Your task to perform on an android device: When is my next appointment? Image 0: 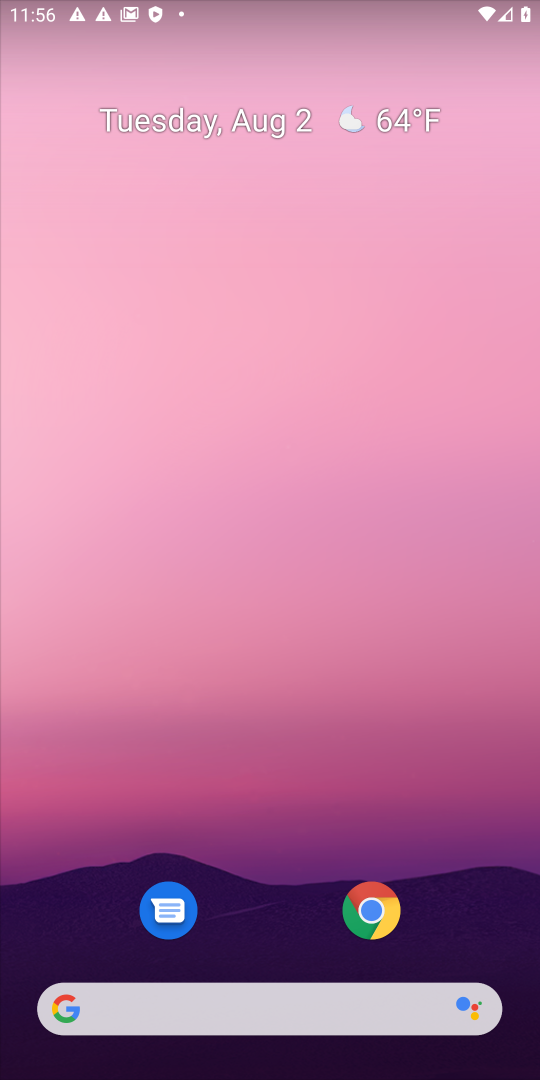
Step 0: drag from (277, 915) to (207, 12)
Your task to perform on an android device: When is my next appointment? Image 1: 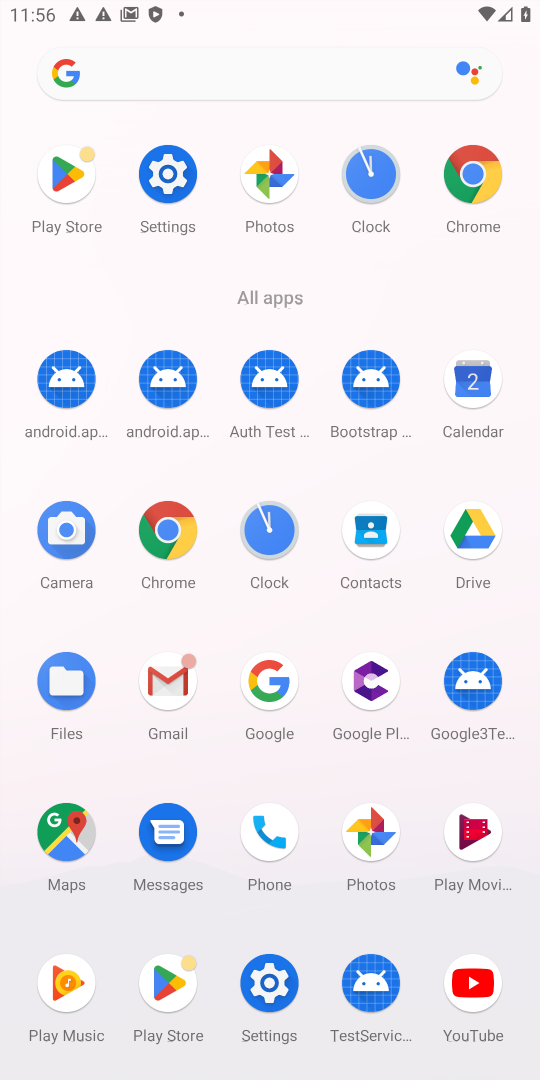
Step 1: click (466, 392)
Your task to perform on an android device: When is my next appointment? Image 2: 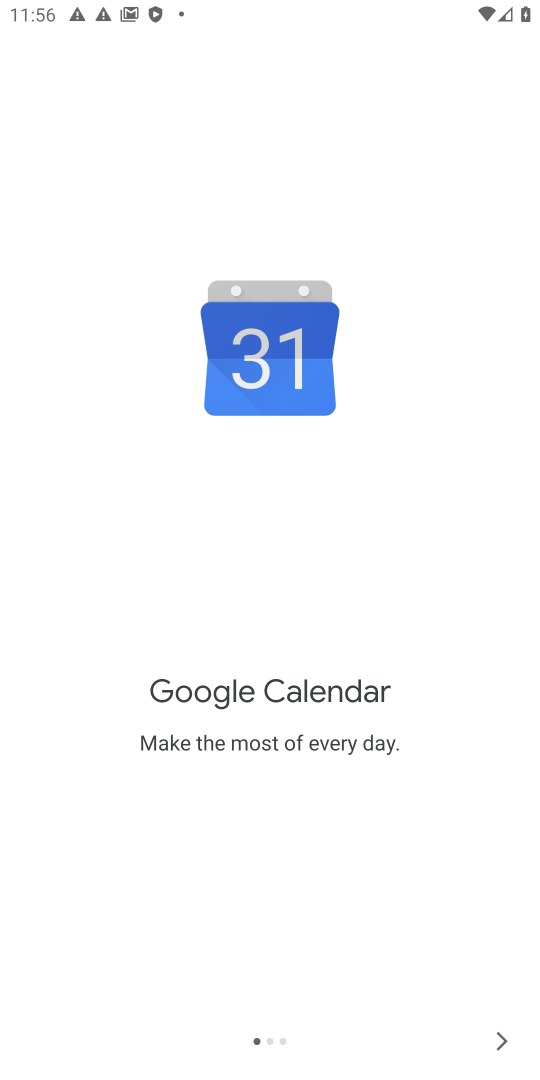
Step 2: click (503, 1042)
Your task to perform on an android device: When is my next appointment? Image 3: 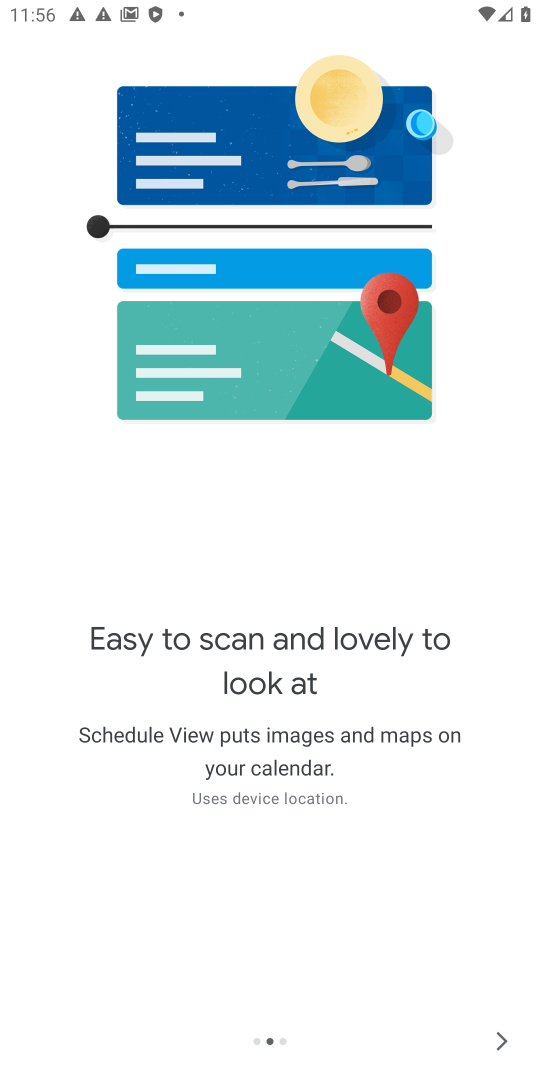
Step 3: click (503, 1042)
Your task to perform on an android device: When is my next appointment? Image 4: 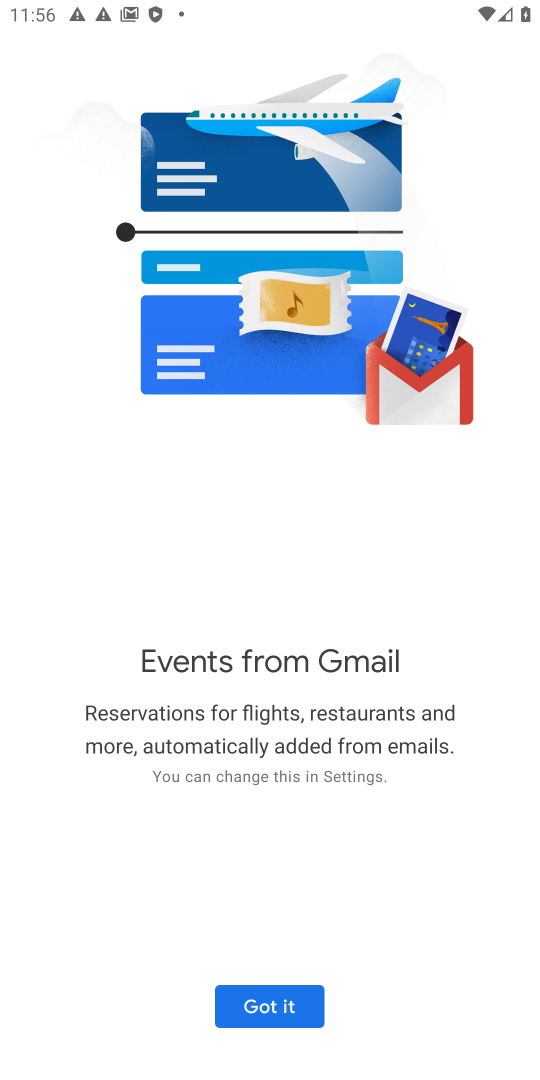
Step 4: click (250, 1020)
Your task to perform on an android device: When is my next appointment? Image 5: 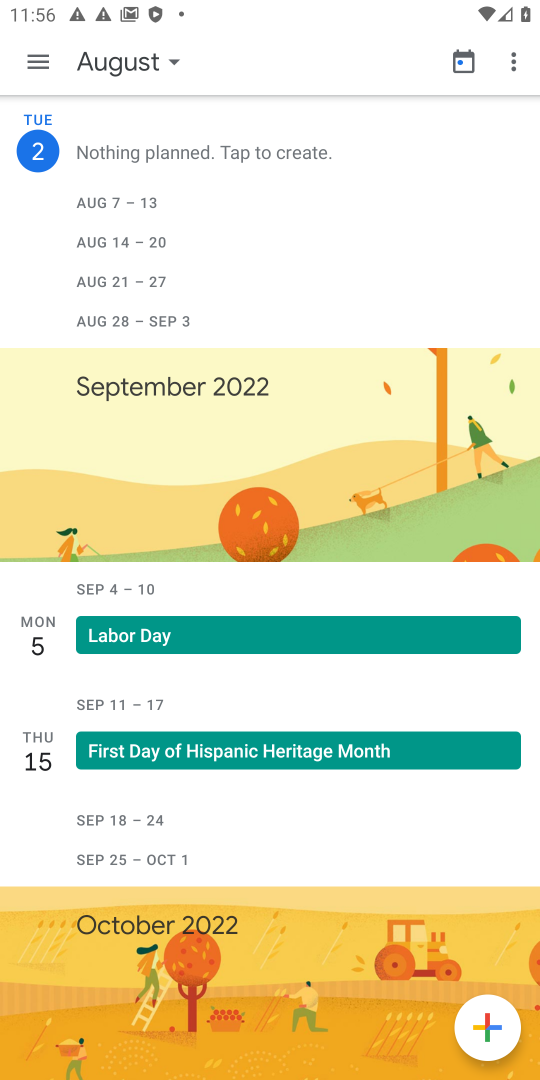
Step 5: click (23, 61)
Your task to perform on an android device: When is my next appointment? Image 6: 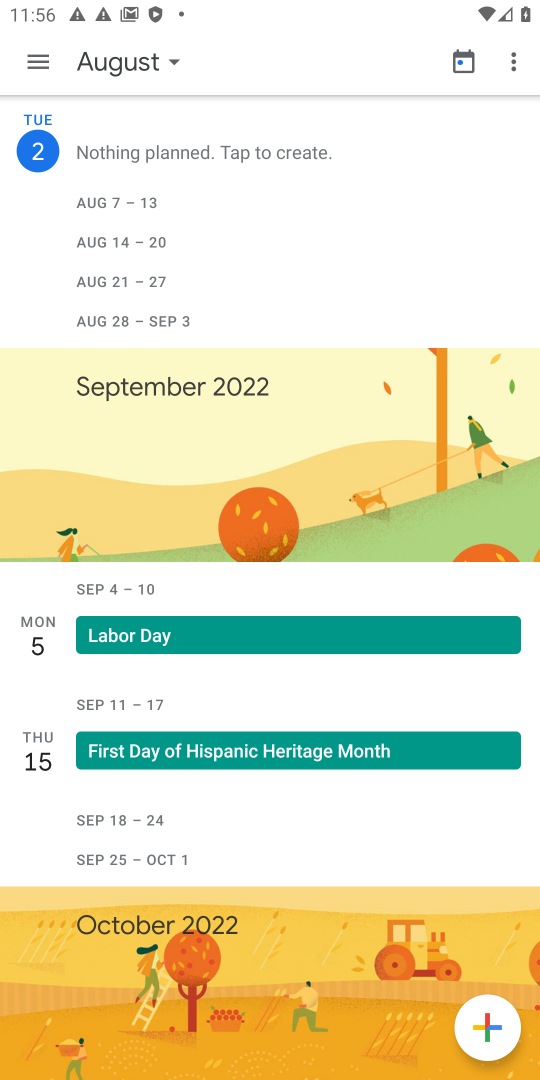
Step 6: click (32, 62)
Your task to perform on an android device: When is my next appointment? Image 7: 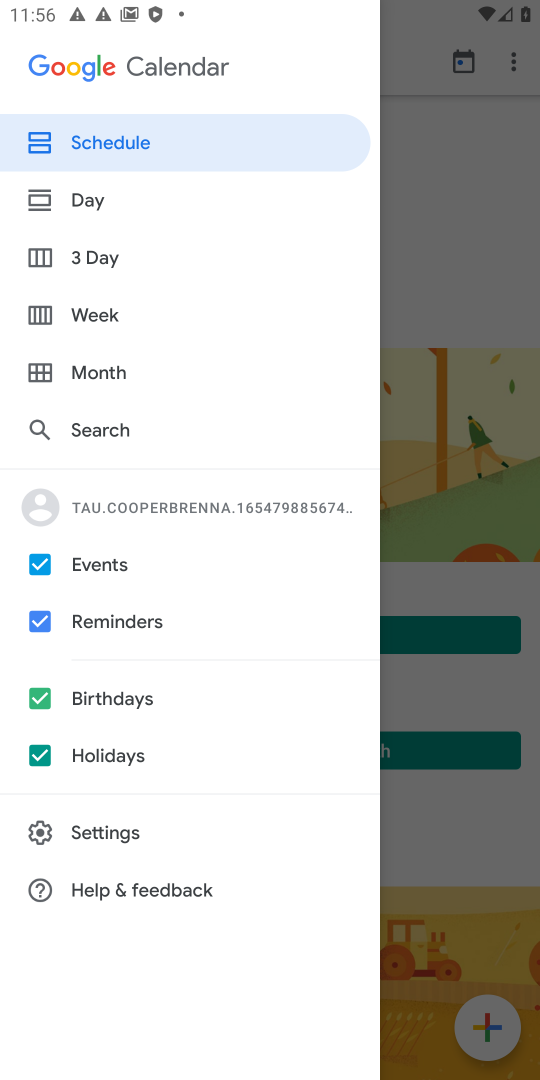
Step 7: click (42, 700)
Your task to perform on an android device: When is my next appointment? Image 8: 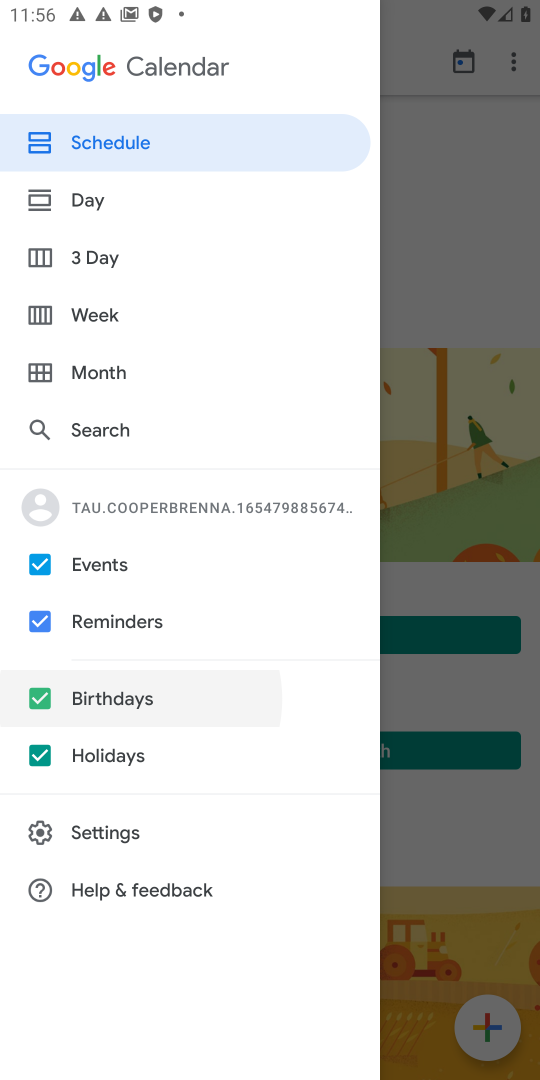
Step 8: click (42, 748)
Your task to perform on an android device: When is my next appointment? Image 9: 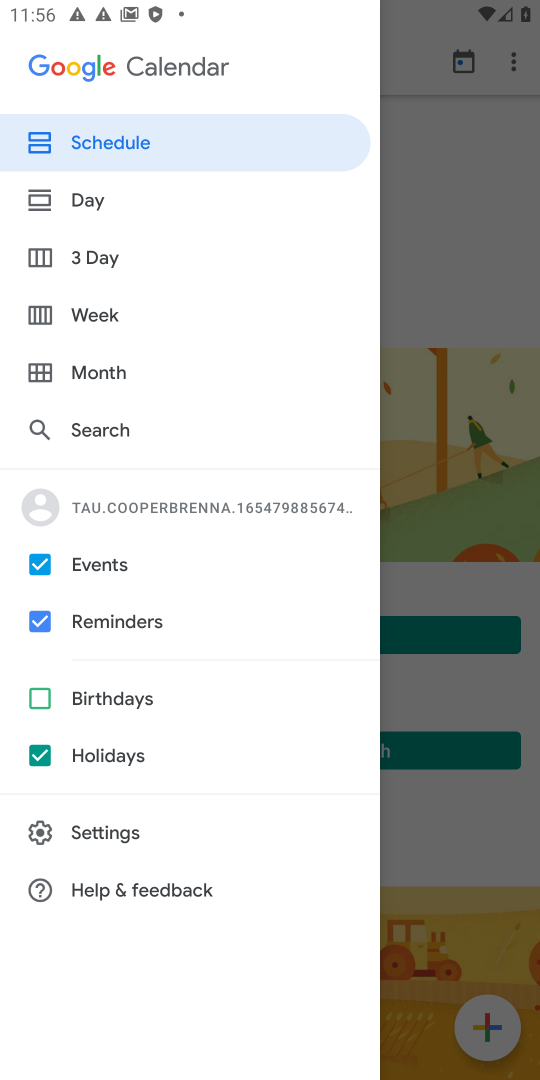
Step 9: click (38, 751)
Your task to perform on an android device: When is my next appointment? Image 10: 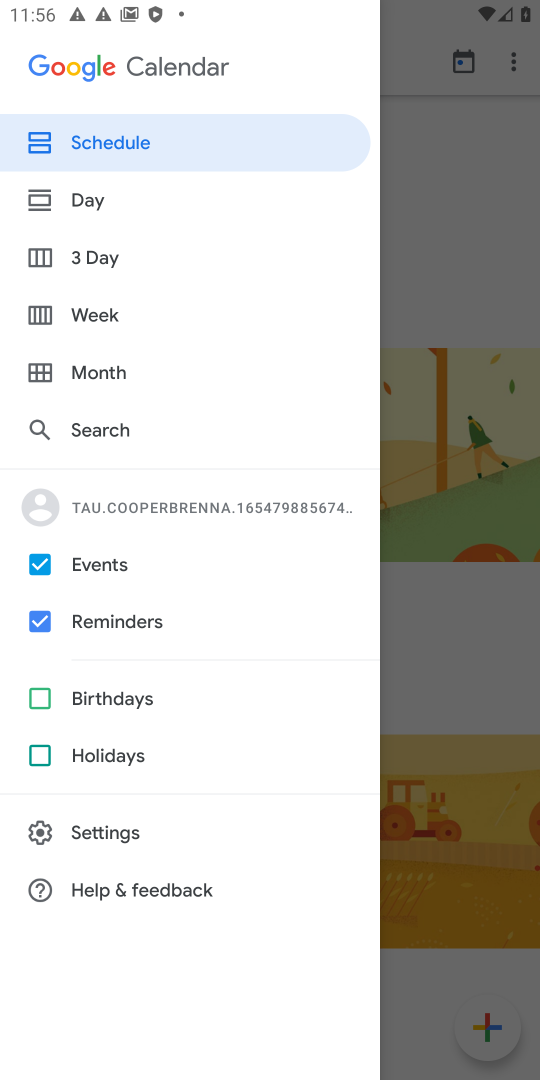
Step 10: click (59, 142)
Your task to perform on an android device: When is my next appointment? Image 11: 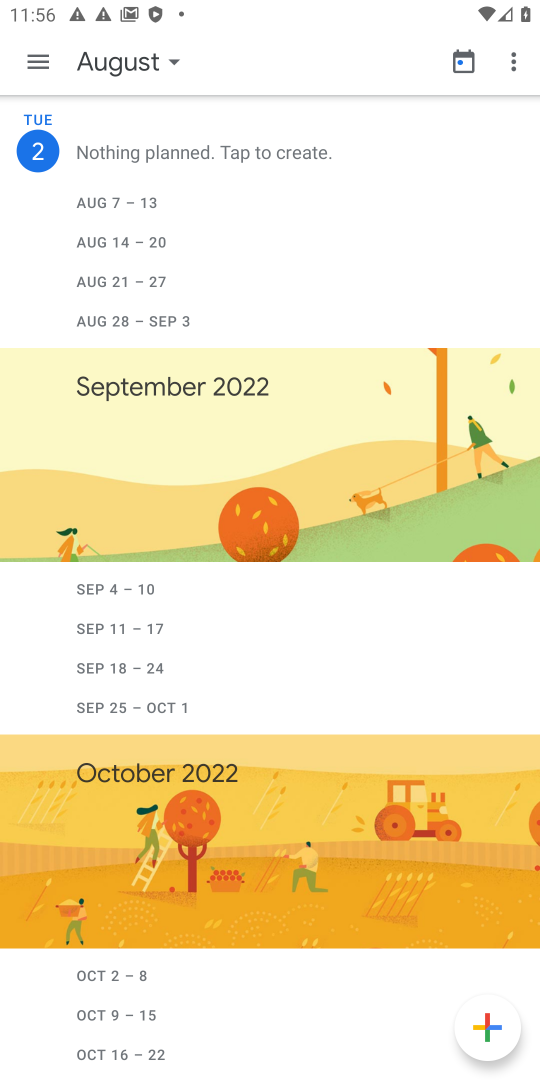
Step 11: drag from (225, 367) to (227, 183)
Your task to perform on an android device: When is my next appointment? Image 12: 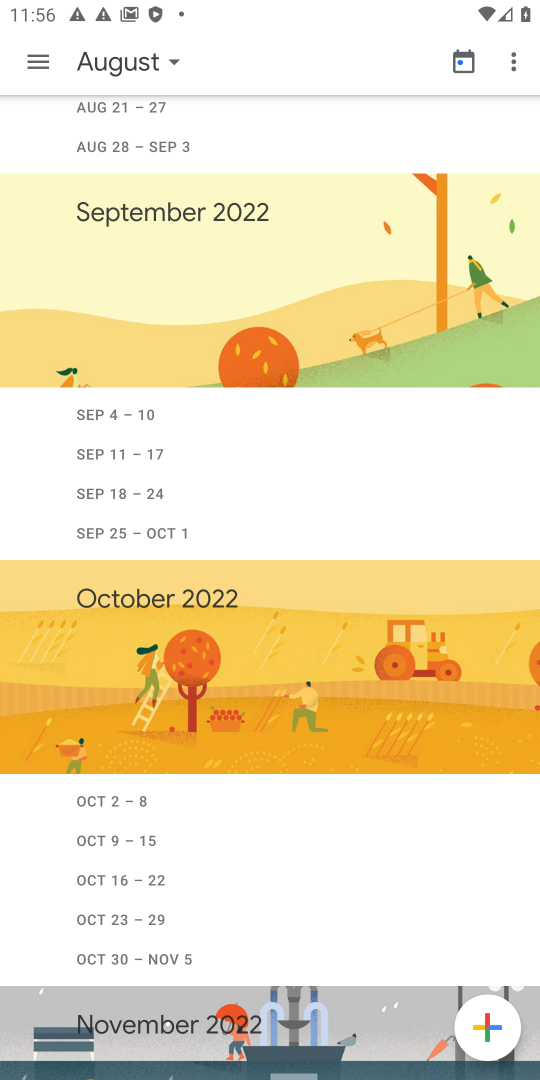
Step 12: drag from (262, 818) to (251, 242)
Your task to perform on an android device: When is my next appointment? Image 13: 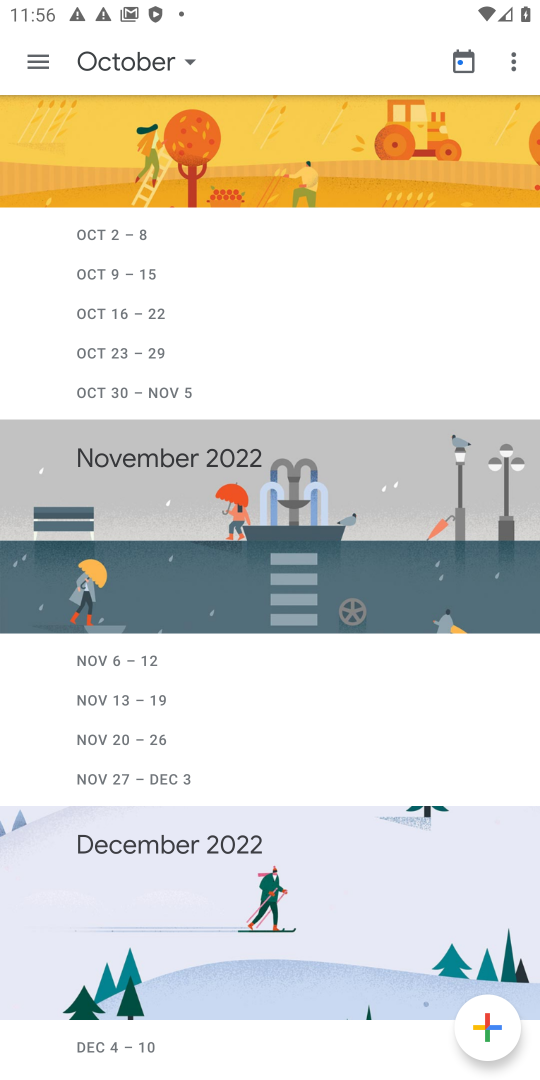
Step 13: drag from (236, 932) to (236, 359)
Your task to perform on an android device: When is my next appointment? Image 14: 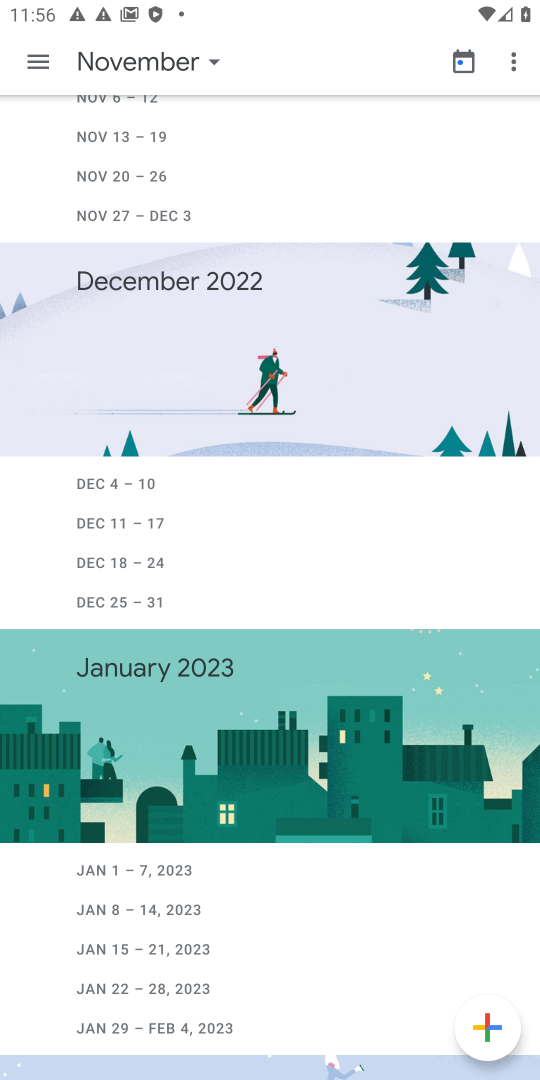
Step 14: drag from (251, 846) to (233, 432)
Your task to perform on an android device: When is my next appointment? Image 15: 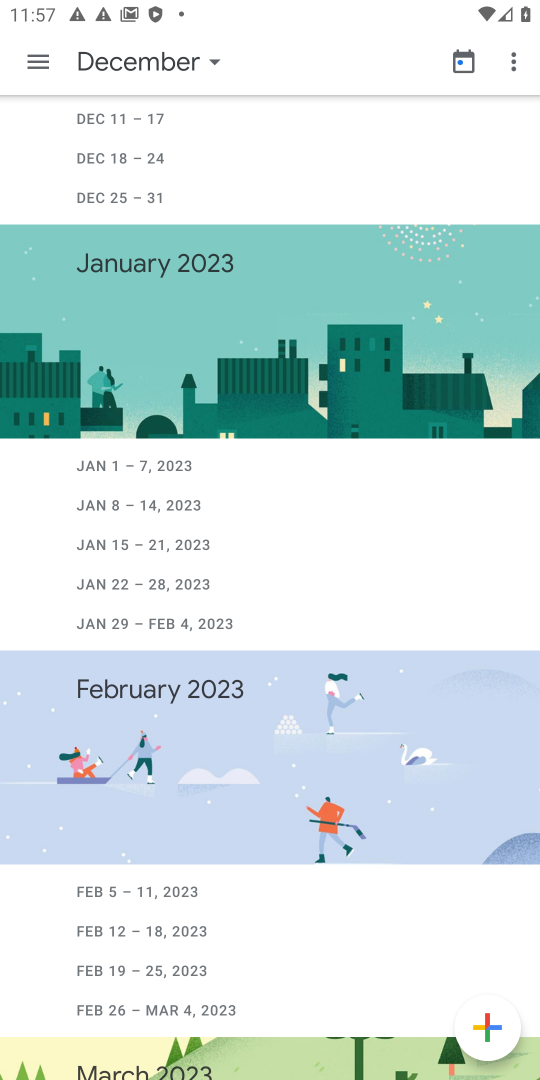
Step 15: drag from (220, 758) to (220, 468)
Your task to perform on an android device: When is my next appointment? Image 16: 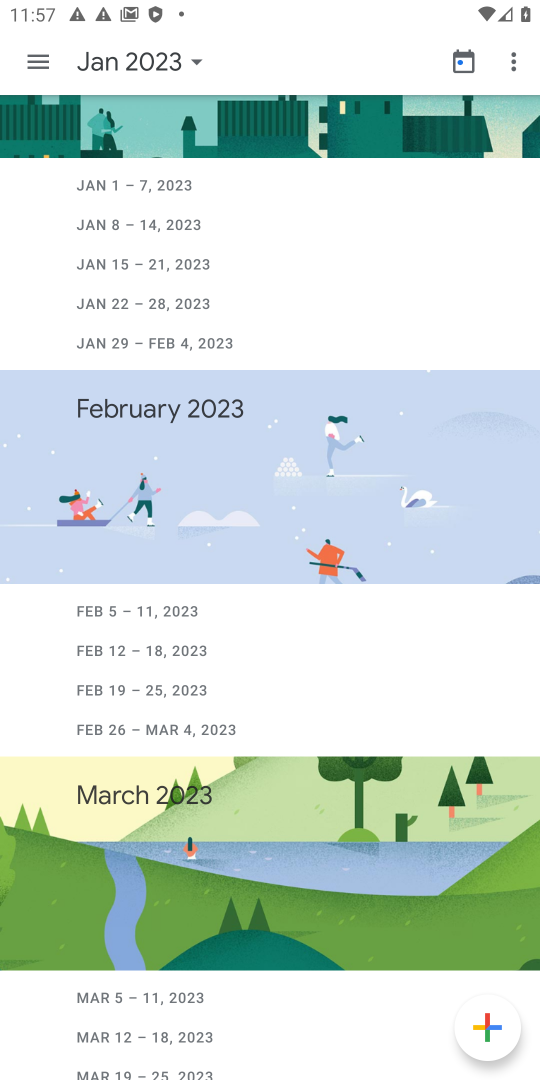
Step 16: drag from (220, 464) to (203, 1076)
Your task to perform on an android device: When is my next appointment? Image 17: 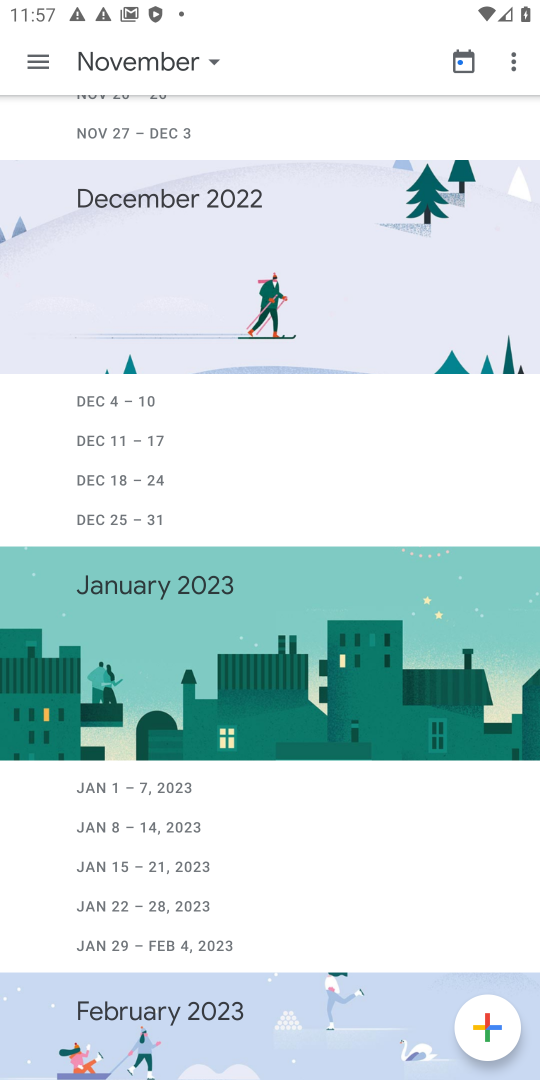
Step 17: drag from (150, 274) to (86, 986)
Your task to perform on an android device: When is my next appointment? Image 18: 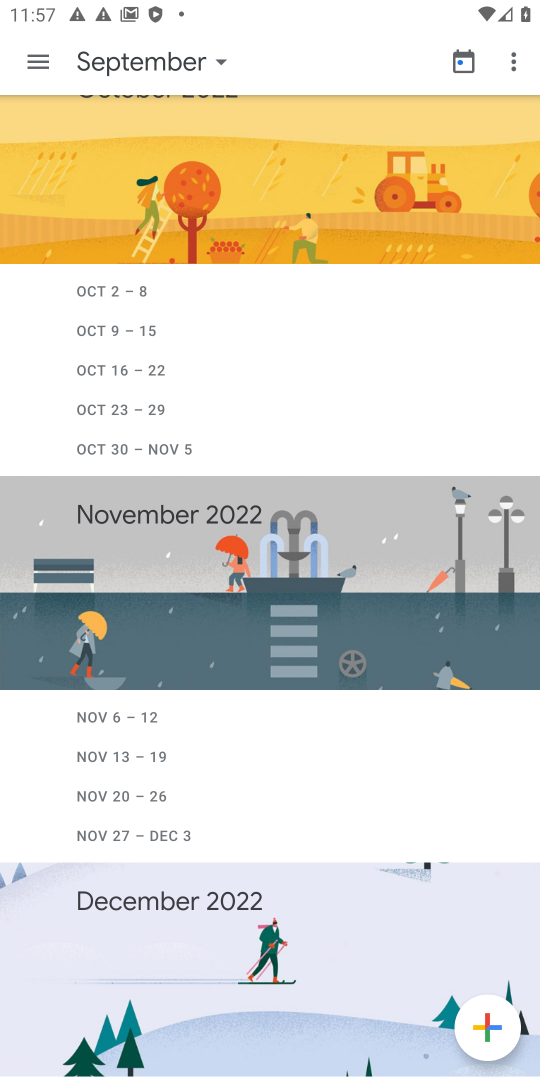
Step 18: drag from (159, 213) to (148, 954)
Your task to perform on an android device: When is my next appointment? Image 19: 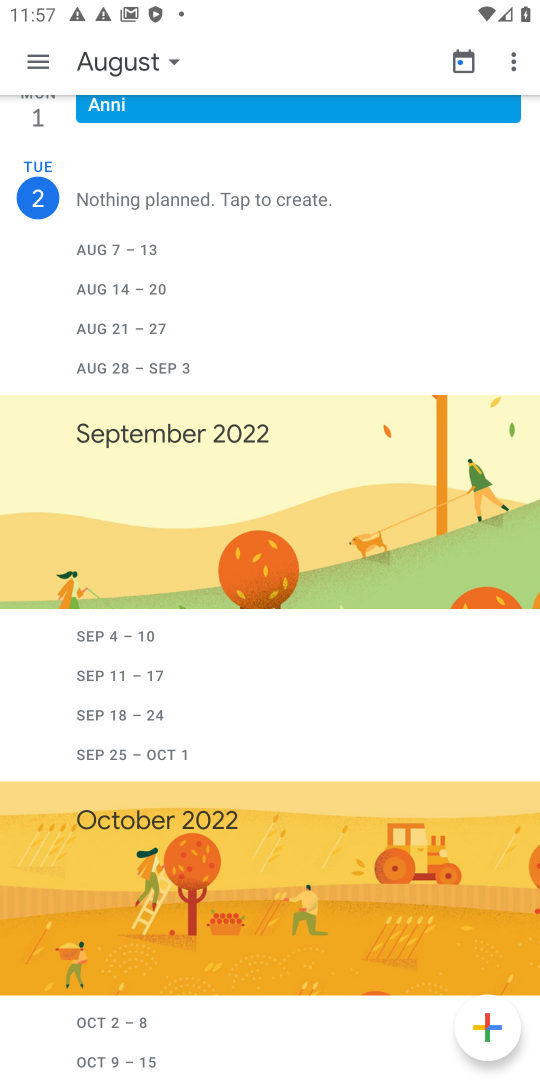
Step 19: click (25, 61)
Your task to perform on an android device: When is my next appointment? Image 20: 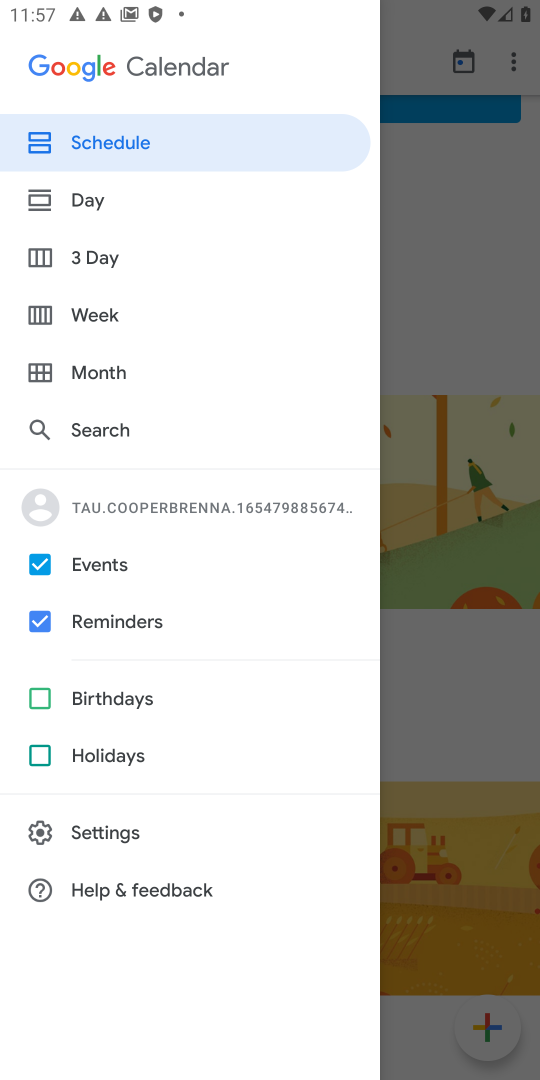
Step 20: click (88, 368)
Your task to perform on an android device: When is my next appointment? Image 21: 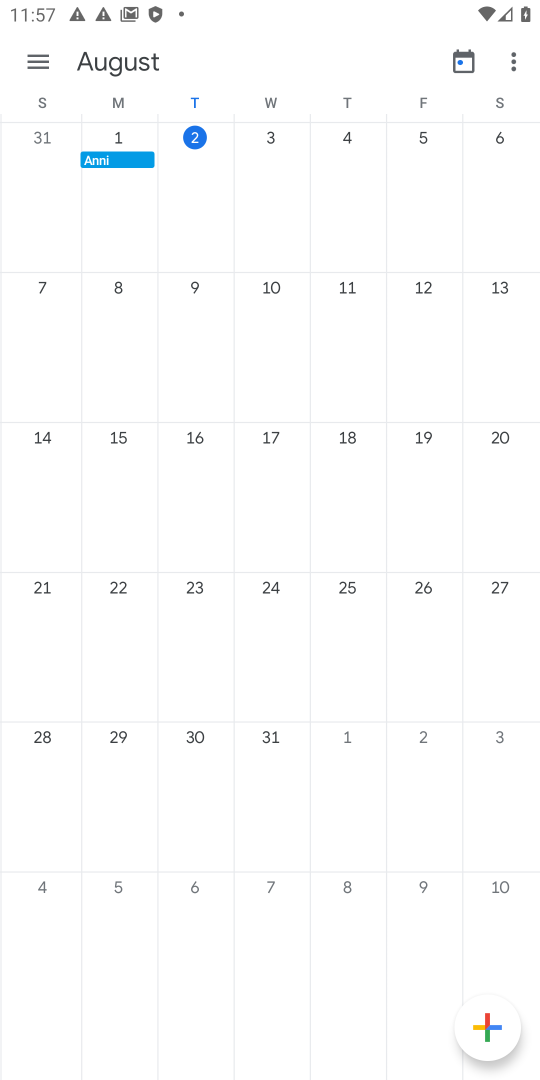
Step 21: task complete